Your task to perform on an android device: empty trash in google photos Image 0: 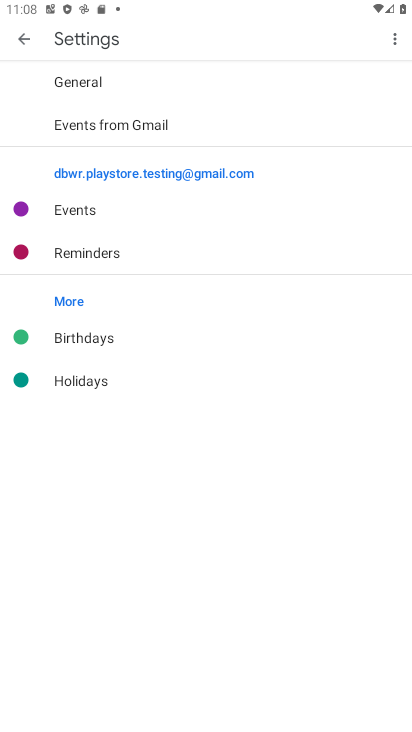
Step 0: press home button
Your task to perform on an android device: empty trash in google photos Image 1: 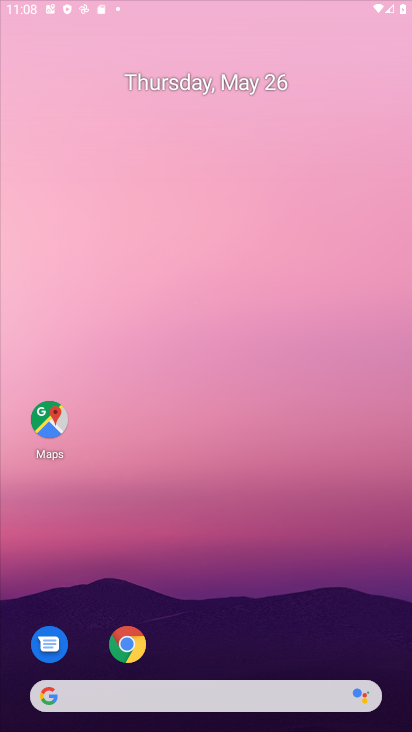
Step 1: drag from (360, 617) to (285, 54)
Your task to perform on an android device: empty trash in google photos Image 2: 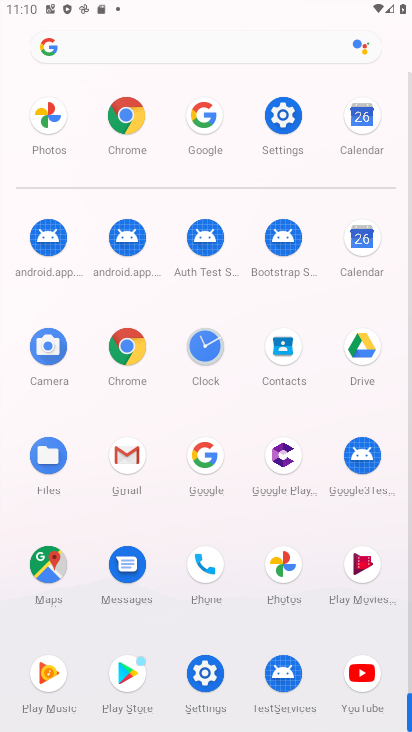
Step 2: click (285, 587)
Your task to perform on an android device: empty trash in google photos Image 3: 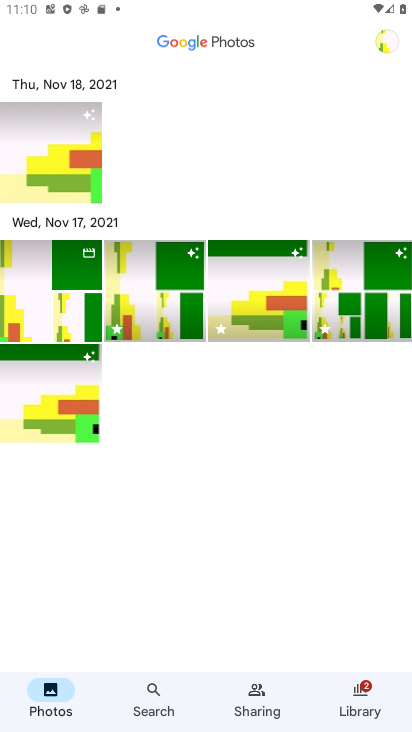
Step 3: click (356, 703)
Your task to perform on an android device: empty trash in google photos Image 4: 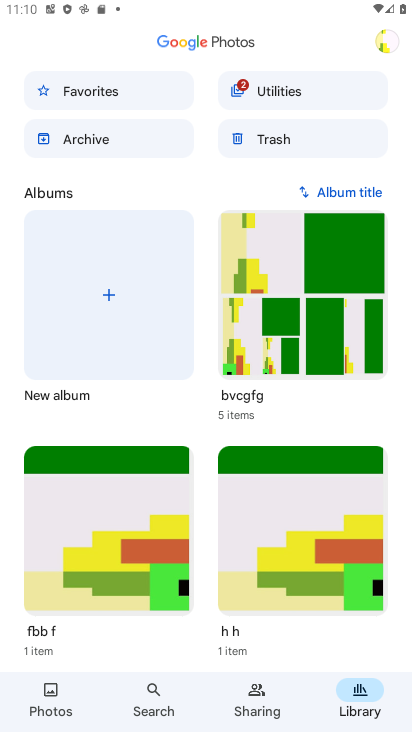
Step 4: click (304, 150)
Your task to perform on an android device: empty trash in google photos Image 5: 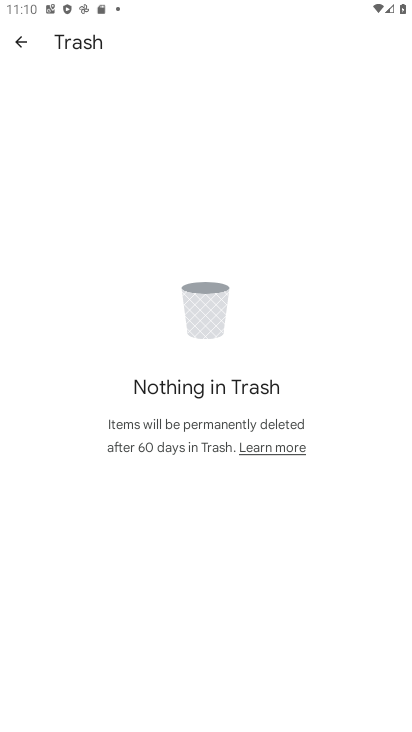
Step 5: task complete